Your task to perform on an android device: toggle pop-ups in chrome Image 0: 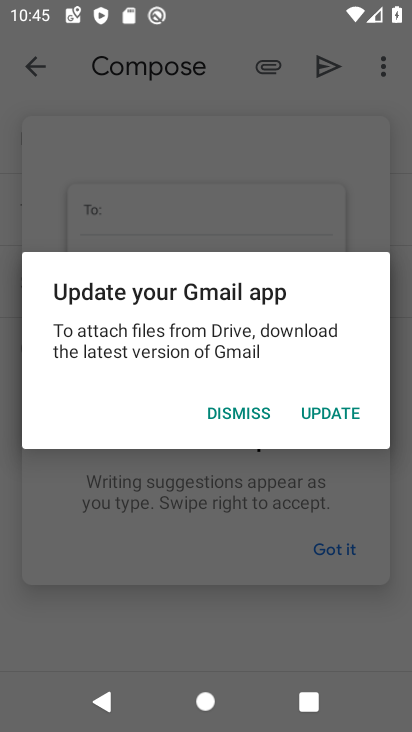
Step 0: press home button
Your task to perform on an android device: toggle pop-ups in chrome Image 1: 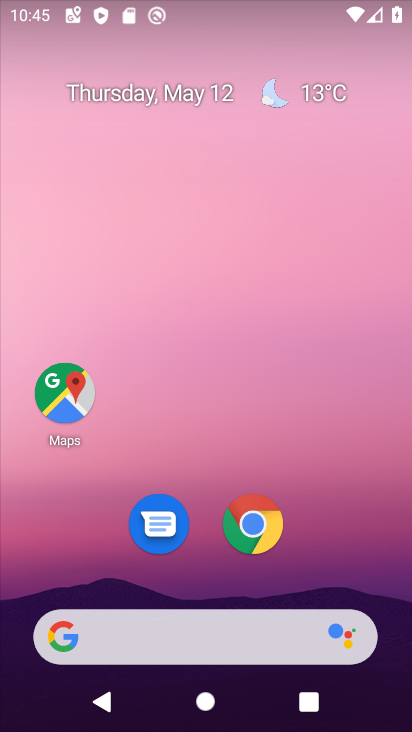
Step 1: click (254, 517)
Your task to perform on an android device: toggle pop-ups in chrome Image 2: 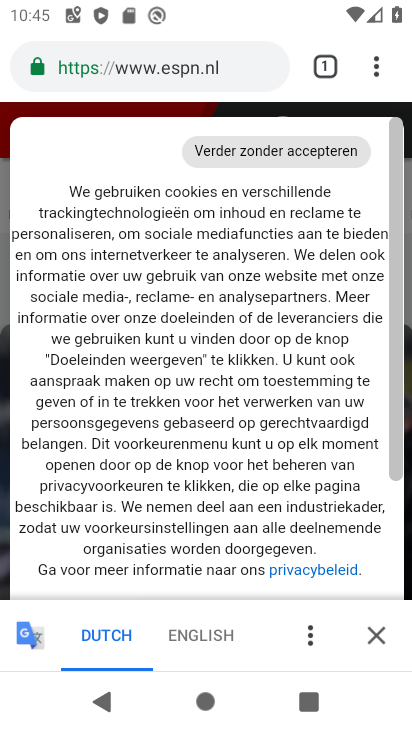
Step 2: click (374, 61)
Your task to perform on an android device: toggle pop-ups in chrome Image 3: 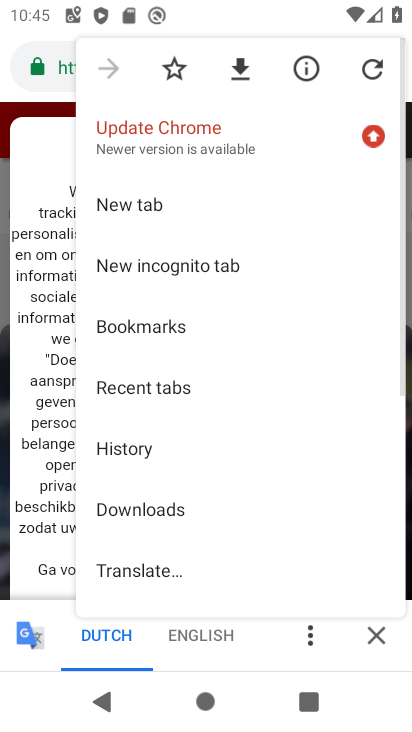
Step 3: drag from (183, 550) to (249, 326)
Your task to perform on an android device: toggle pop-ups in chrome Image 4: 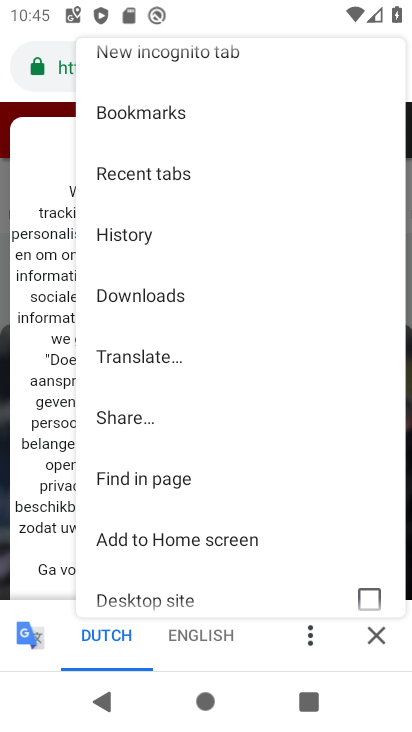
Step 4: drag from (185, 460) to (224, 210)
Your task to perform on an android device: toggle pop-ups in chrome Image 5: 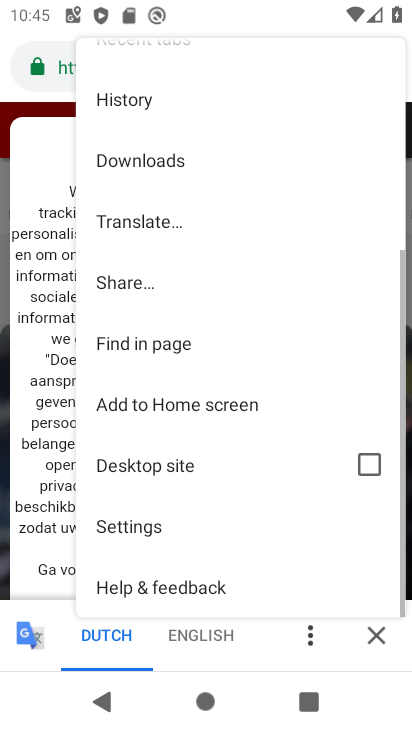
Step 5: click (118, 515)
Your task to perform on an android device: toggle pop-ups in chrome Image 6: 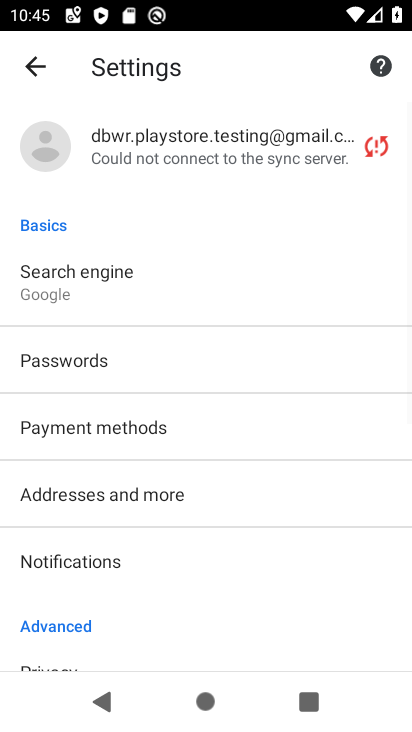
Step 6: drag from (251, 513) to (293, 120)
Your task to perform on an android device: toggle pop-ups in chrome Image 7: 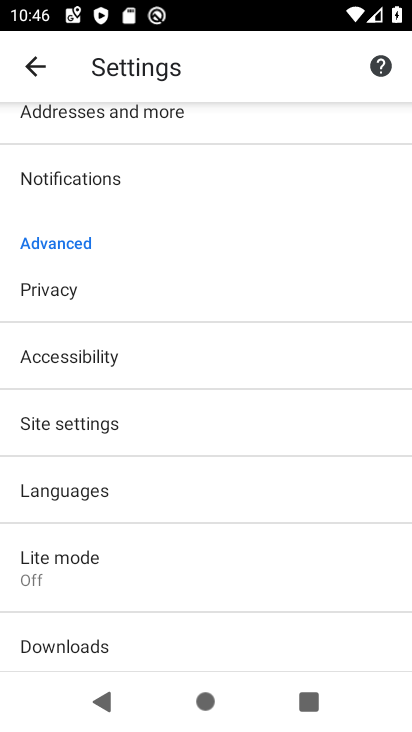
Step 7: click (176, 430)
Your task to perform on an android device: toggle pop-ups in chrome Image 8: 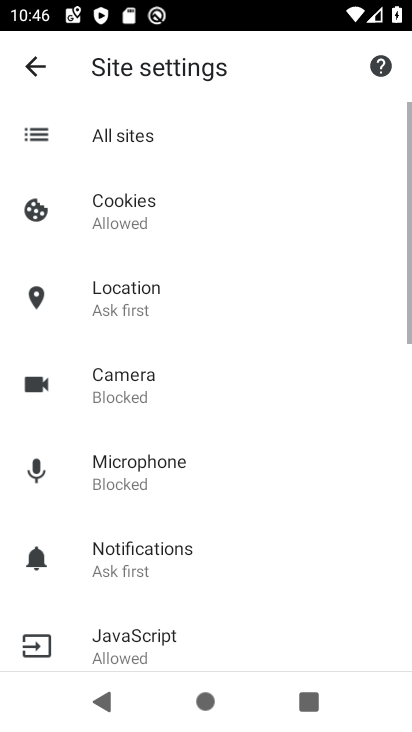
Step 8: drag from (246, 564) to (287, 262)
Your task to perform on an android device: toggle pop-ups in chrome Image 9: 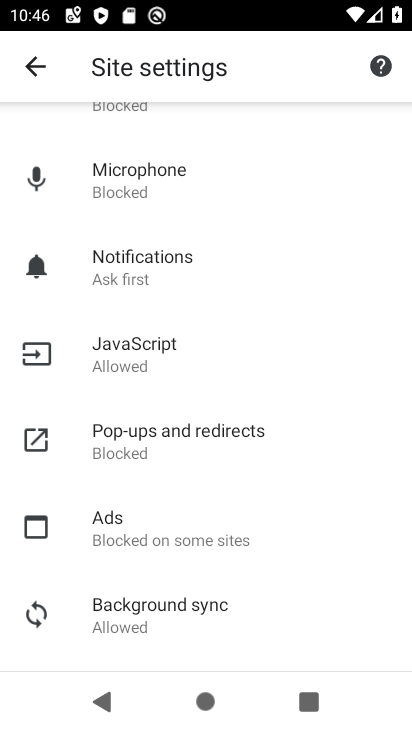
Step 9: click (233, 432)
Your task to perform on an android device: toggle pop-ups in chrome Image 10: 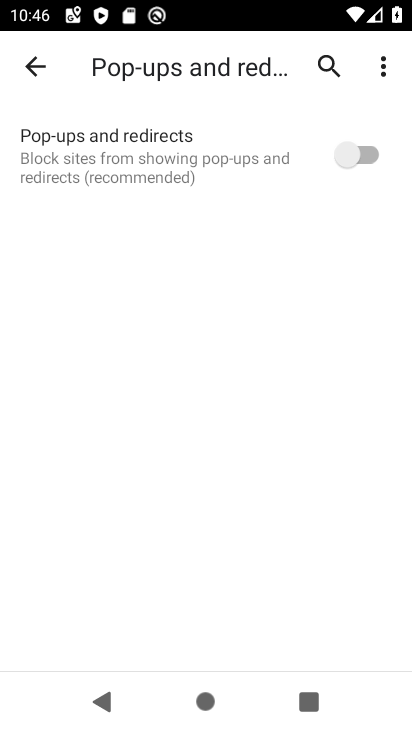
Step 10: click (368, 145)
Your task to perform on an android device: toggle pop-ups in chrome Image 11: 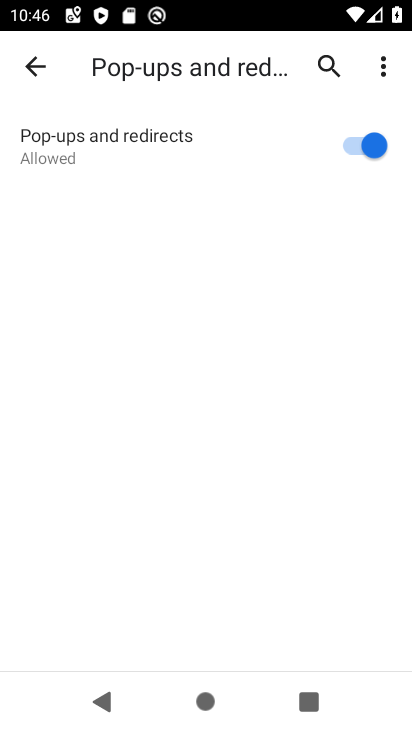
Step 11: task complete